Your task to perform on an android device: Go to settings Image 0: 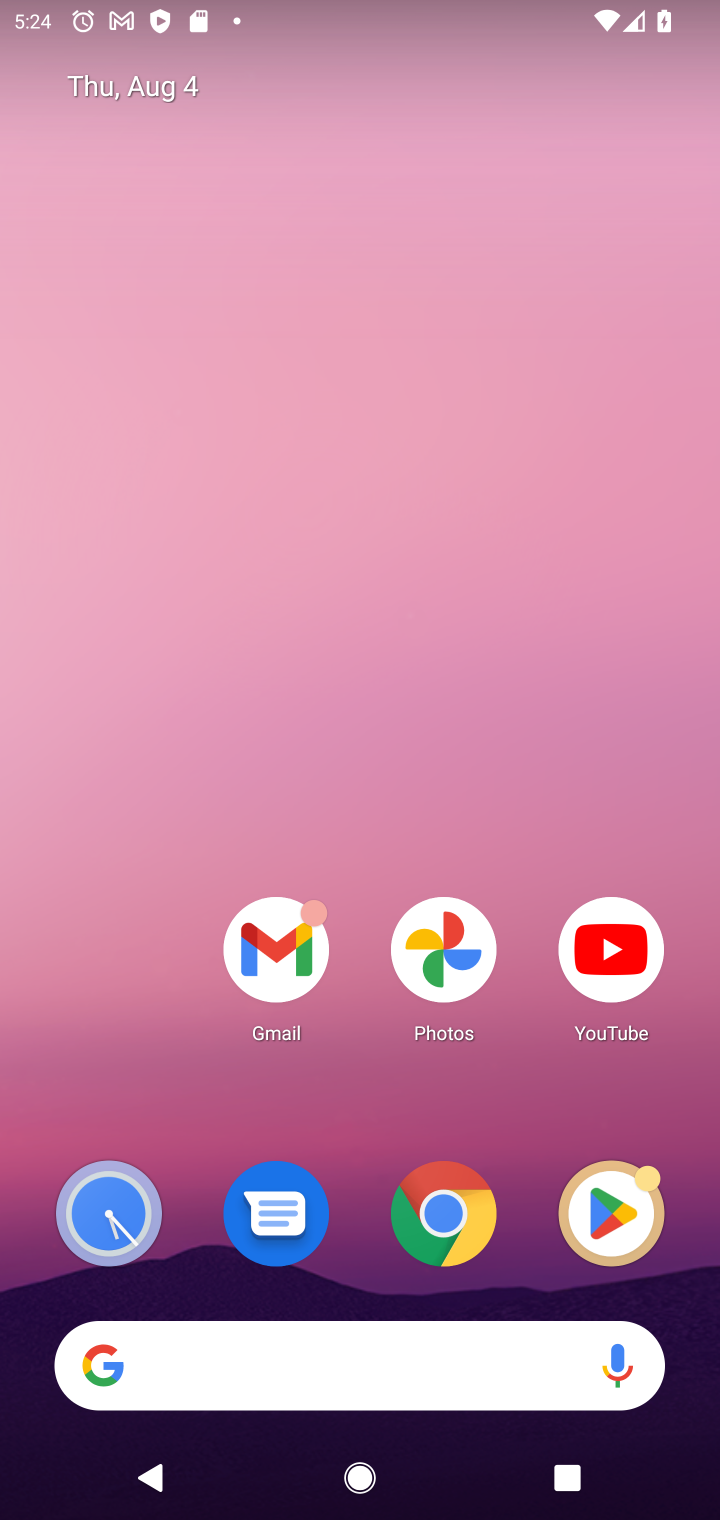
Step 0: drag from (512, 1128) to (540, 30)
Your task to perform on an android device: Go to settings Image 1: 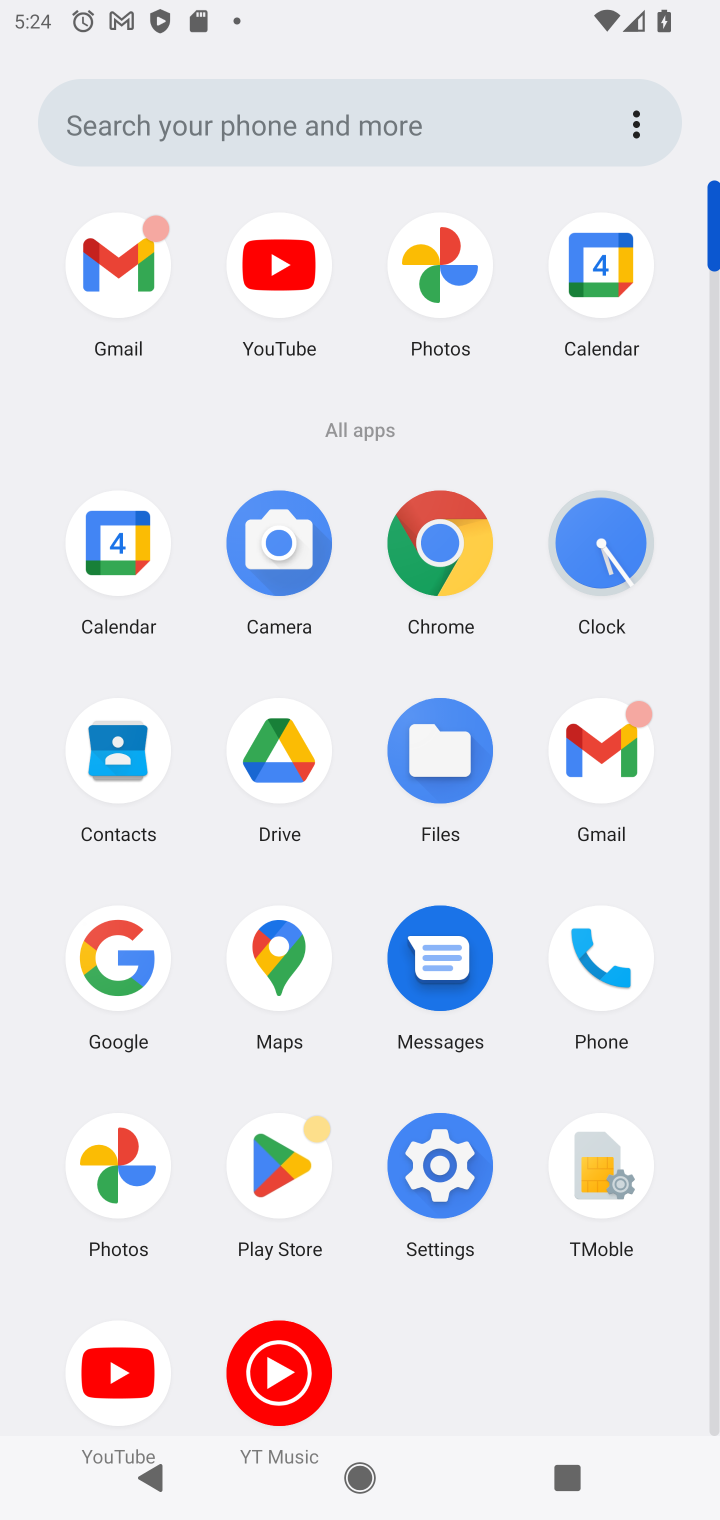
Step 1: click (433, 1172)
Your task to perform on an android device: Go to settings Image 2: 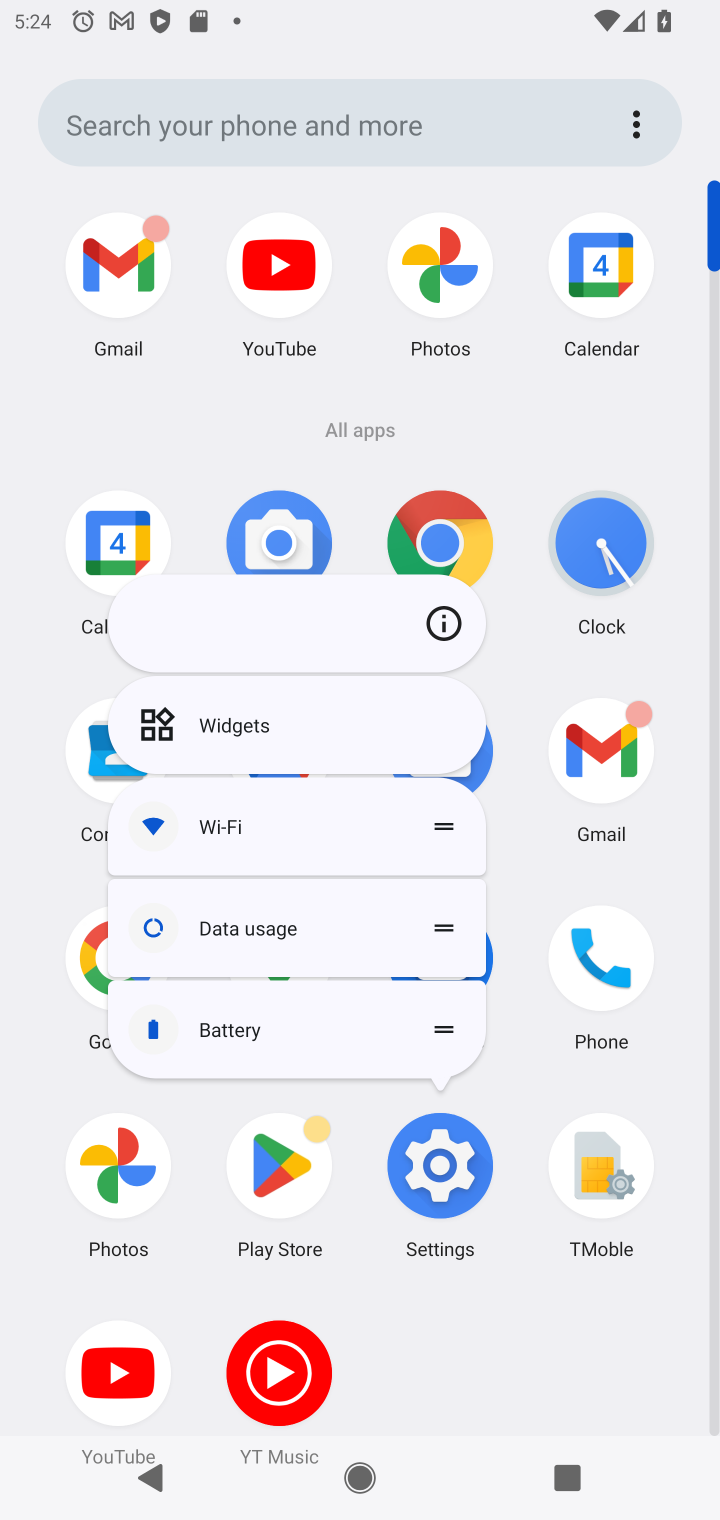
Step 2: click (433, 1172)
Your task to perform on an android device: Go to settings Image 3: 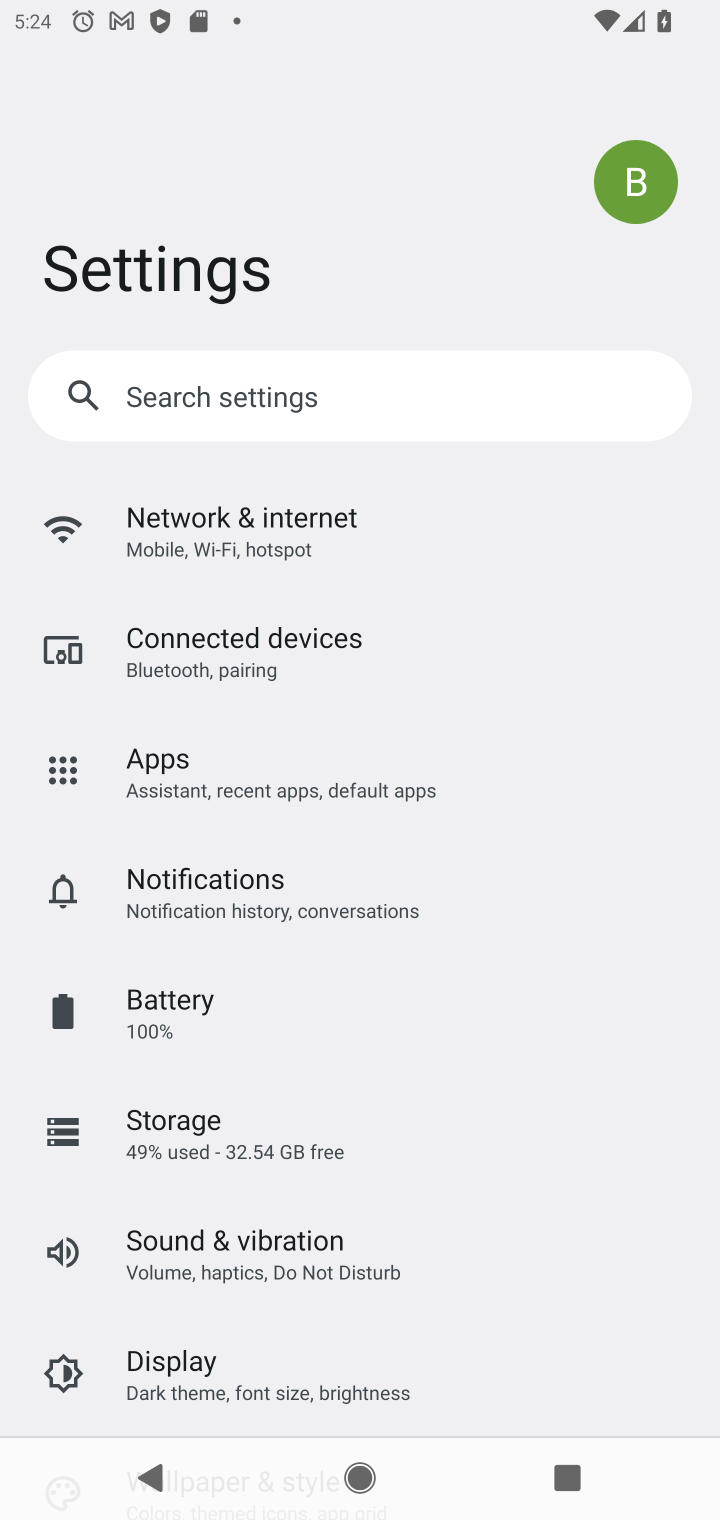
Step 3: task complete